Your task to perform on an android device: Show me popular videos on Youtube Image 0: 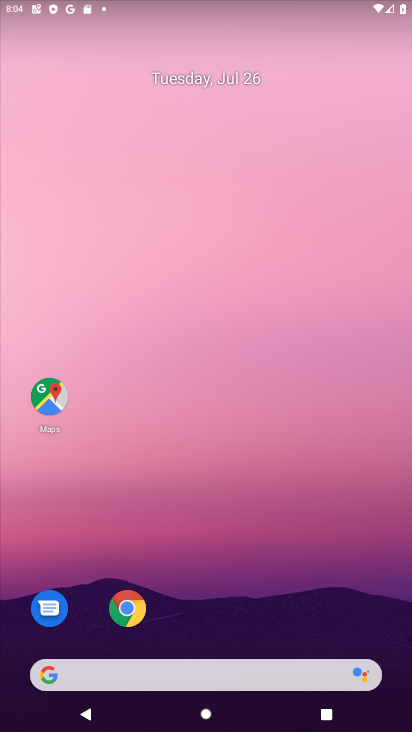
Step 0: drag from (251, 481) to (225, 146)
Your task to perform on an android device: Show me popular videos on Youtube Image 1: 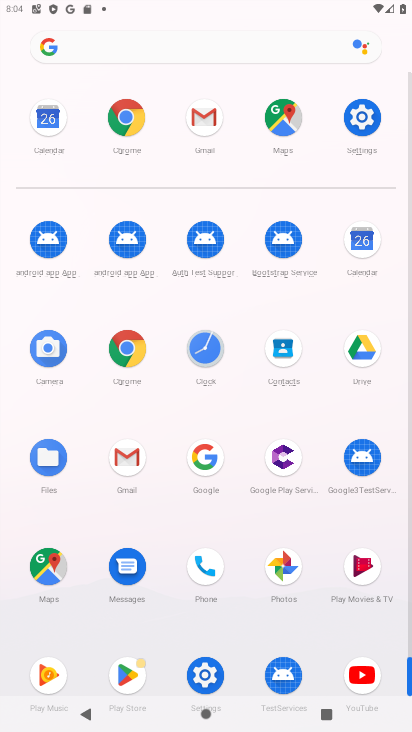
Step 1: click (362, 646)
Your task to perform on an android device: Show me popular videos on Youtube Image 2: 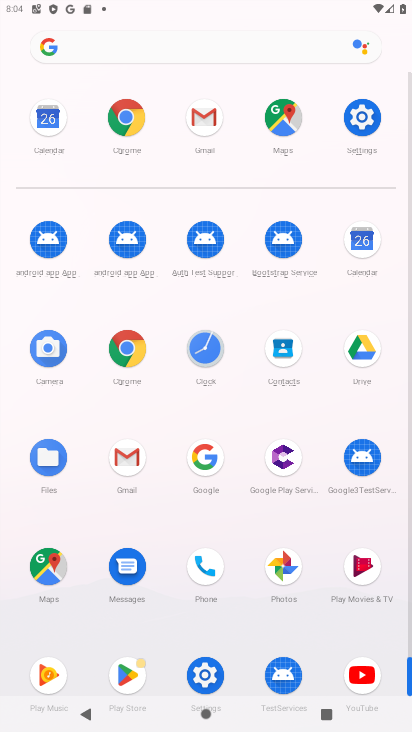
Step 2: click (366, 662)
Your task to perform on an android device: Show me popular videos on Youtube Image 3: 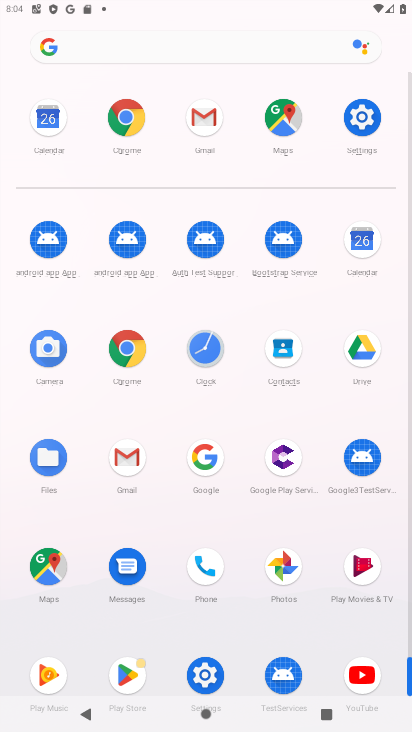
Step 3: click (365, 663)
Your task to perform on an android device: Show me popular videos on Youtube Image 4: 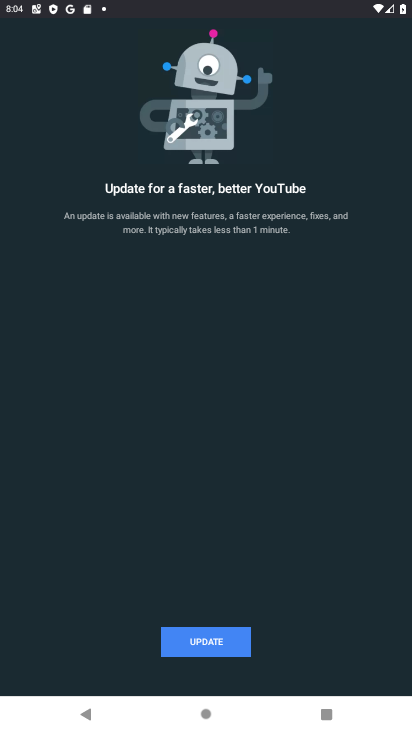
Step 4: press back button
Your task to perform on an android device: Show me popular videos on Youtube Image 5: 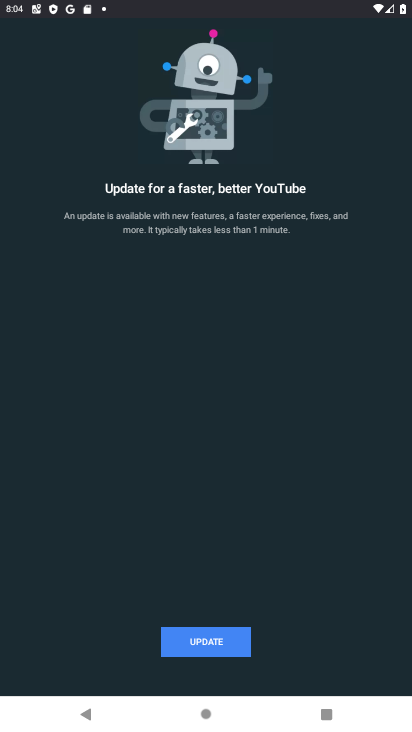
Step 5: press back button
Your task to perform on an android device: Show me popular videos on Youtube Image 6: 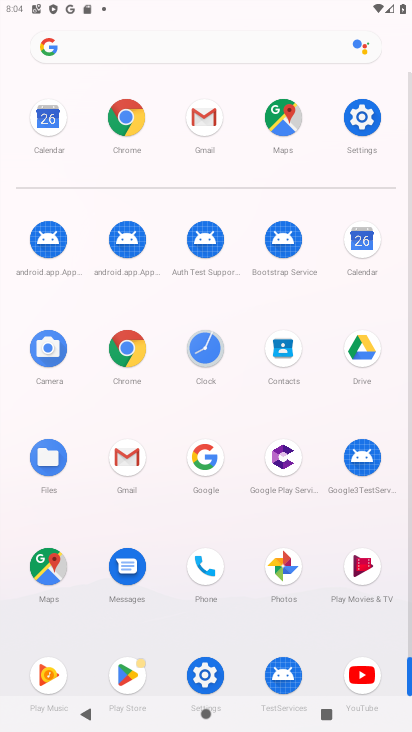
Step 6: click (364, 671)
Your task to perform on an android device: Show me popular videos on Youtube Image 7: 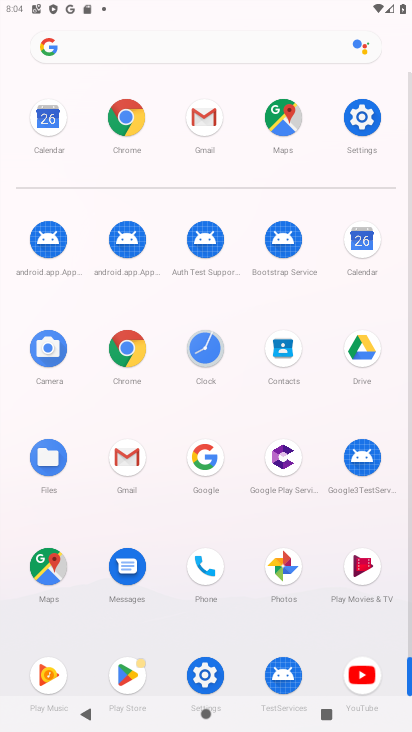
Step 7: click (364, 671)
Your task to perform on an android device: Show me popular videos on Youtube Image 8: 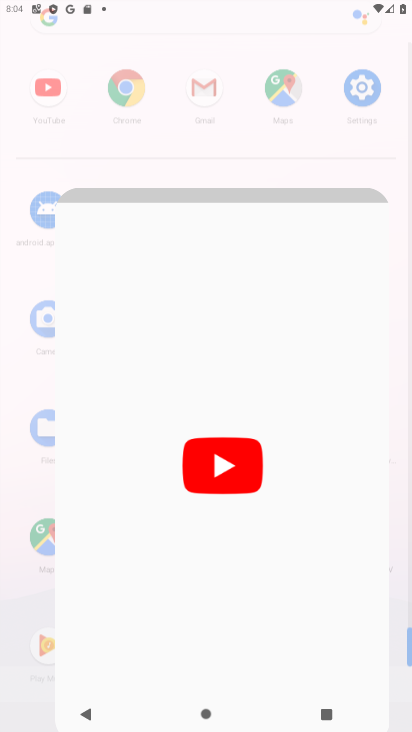
Step 8: click (364, 671)
Your task to perform on an android device: Show me popular videos on Youtube Image 9: 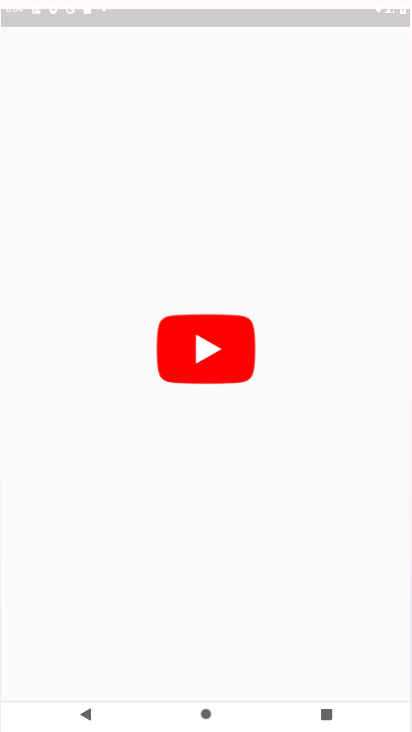
Step 9: click (364, 672)
Your task to perform on an android device: Show me popular videos on Youtube Image 10: 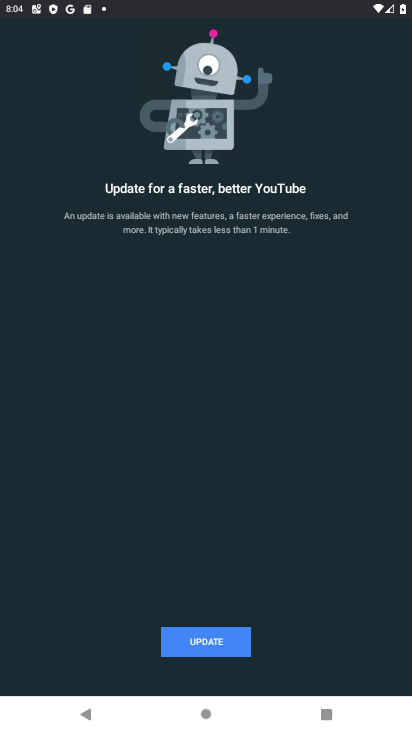
Step 10: press back button
Your task to perform on an android device: Show me popular videos on Youtube Image 11: 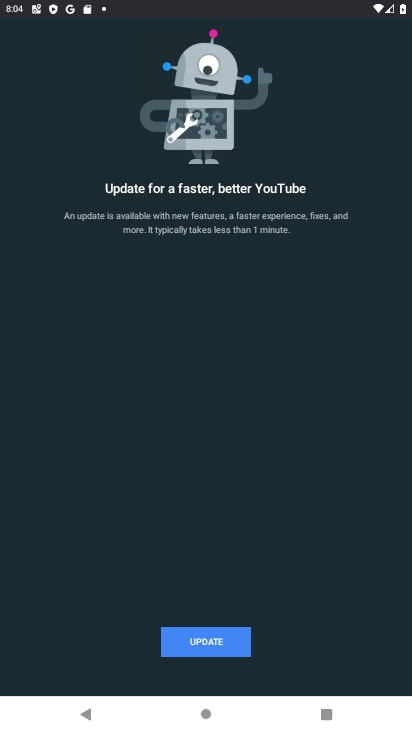
Step 11: press back button
Your task to perform on an android device: Show me popular videos on Youtube Image 12: 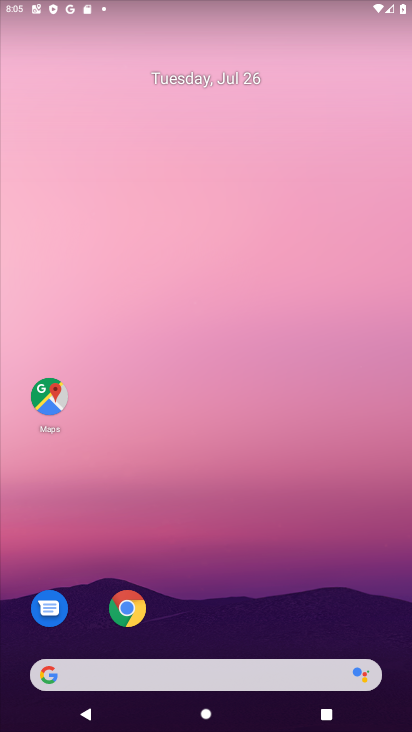
Step 12: drag from (266, 635) to (193, 222)
Your task to perform on an android device: Show me popular videos on Youtube Image 13: 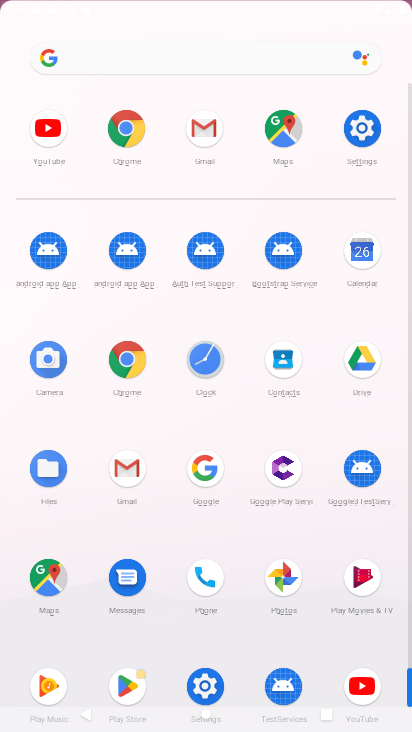
Step 13: drag from (246, 461) to (205, 120)
Your task to perform on an android device: Show me popular videos on Youtube Image 14: 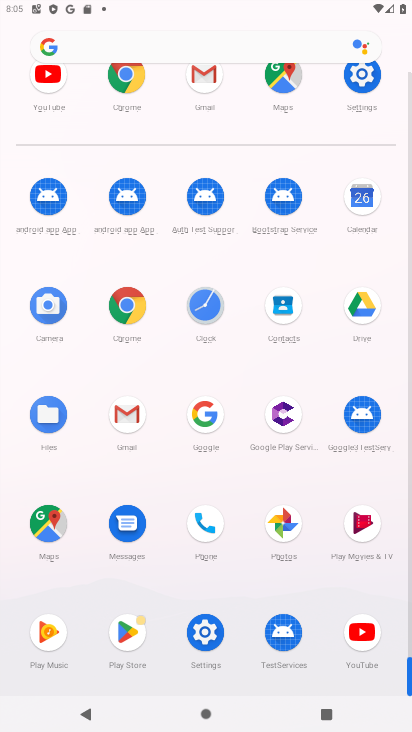
Step 14: click (360, 630)
Your task to perform on an android device: Show me popular videos on Youtube Image 15: 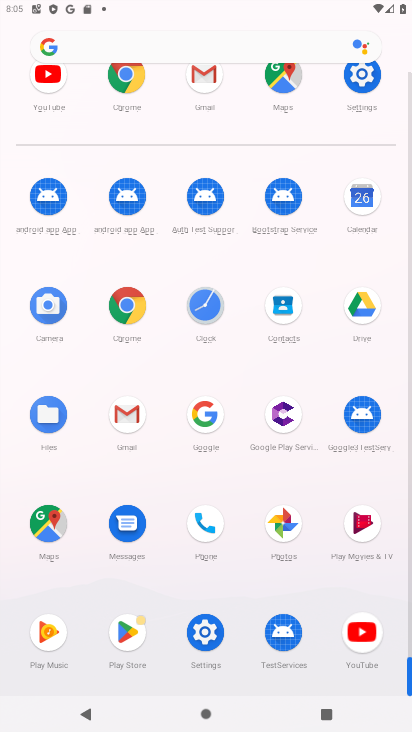
Step 15: click (360, 630)
Your task to perform on an android device: Show me popular videos on Youtube Image 16: 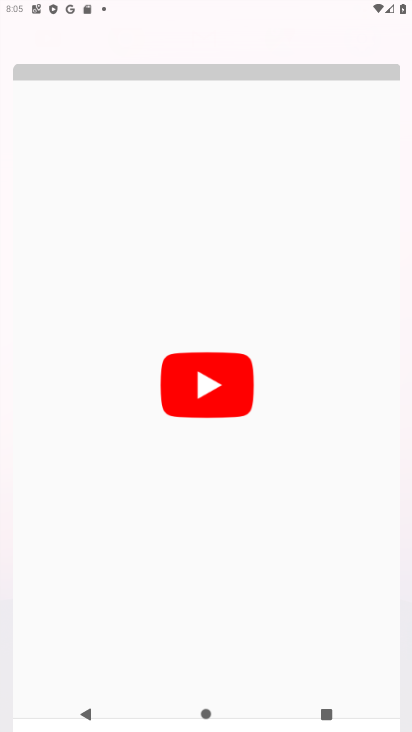
Step 16: click (361, 631)
Your task to perform on an android device: Show me popular videos on Youtube Image 17: 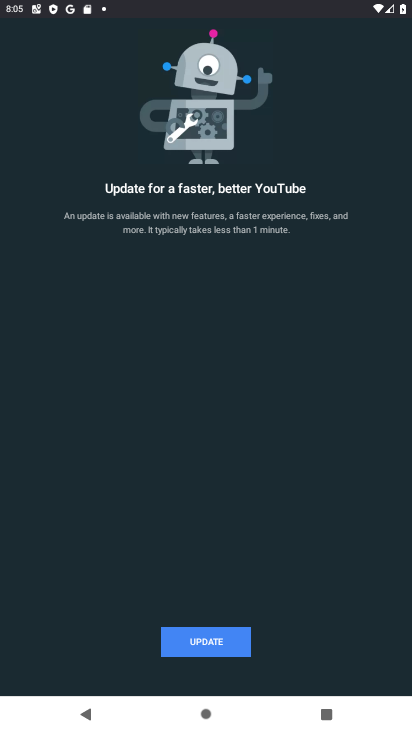
Step 17: click (362, 633)
Your task to perform on an android device: Show me popular videos on Youtube Image 18: 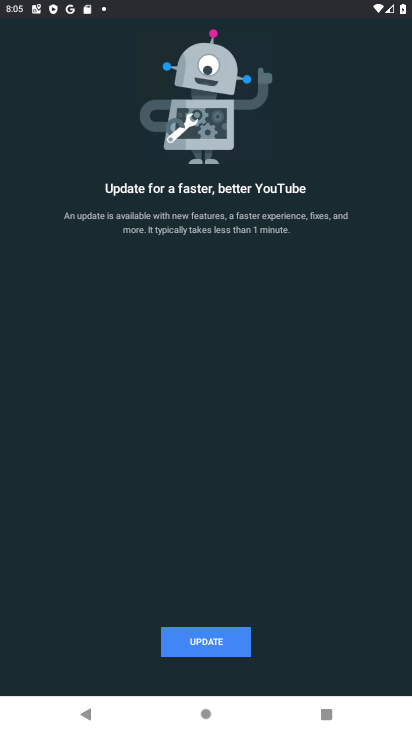
Step 18: click (193, 634)
Your task to perform on an android device: Show me popular videos on Youtube Image 19: 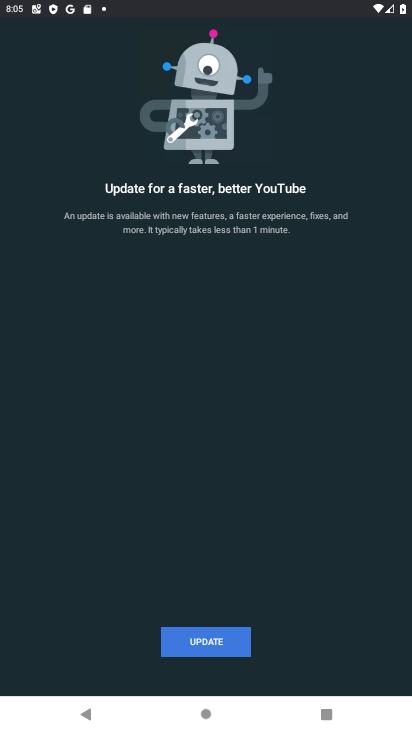
Step 19: click (194, 633)
Your task to perform on an android device: Show me popular videos on Youtube Image 20: 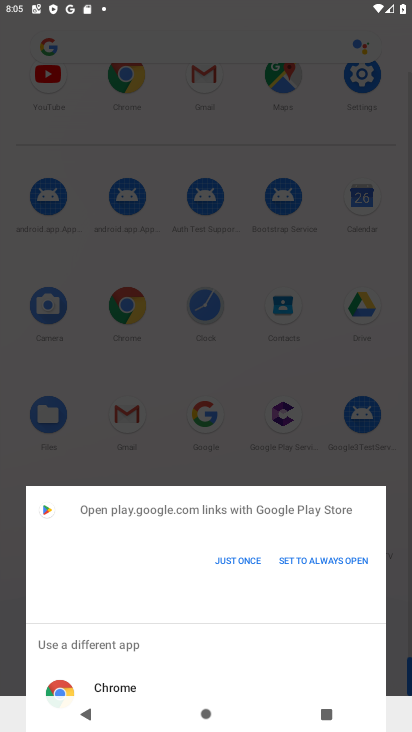
Step 20: drag from (152, 624) to (160, 464)
Your task to perform on an android device: Show me popular videos on Youtube Image 21: 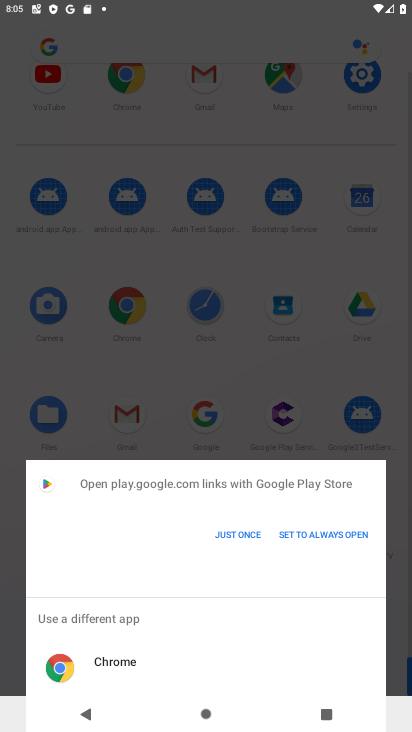
Step 21: click (295, 540)
Your task to perform on an android device: Show me popular videos on Youtube Image 22: 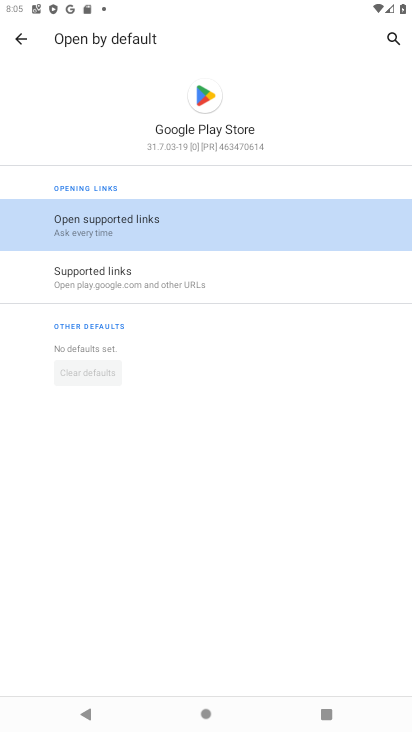
Step 22: click (14, 36)
Your task to perform on an android device: Show me popular videos on Youtube Image 23: 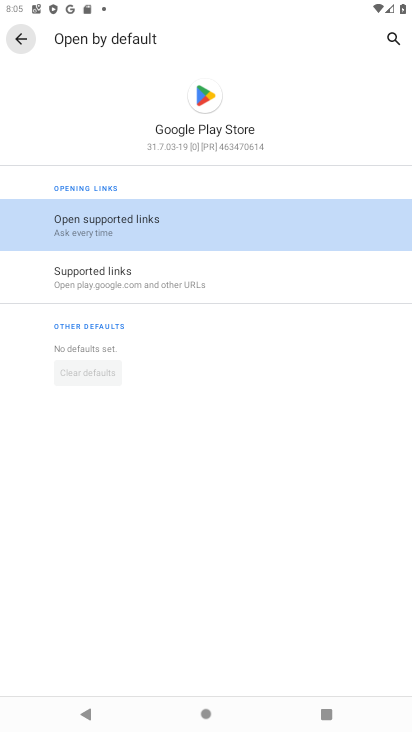
Step 23: click (14, 36)
Your task to perform on an android device: Show me popular videos on Youtube Image 24: 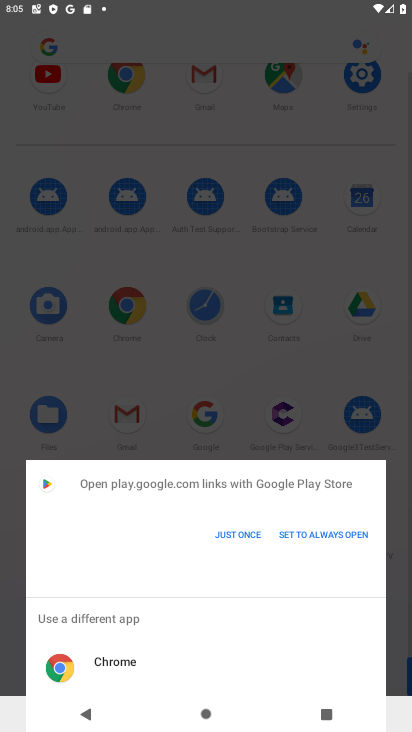
Step 24: drag from (145, 640) to (147, 287)
Your task to perform on an android device: Show me popular videos on Youtube Image 25: 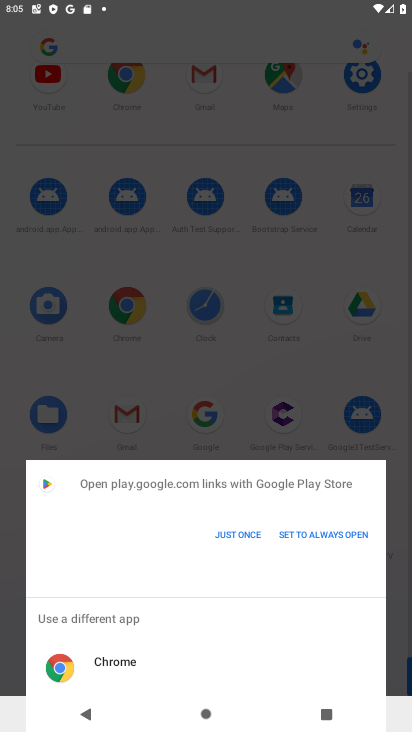
Step 25: drag from (179, 589) to (173, 308)
Your task to perform on an android device: Show me popular videos on Youtube Image 26: 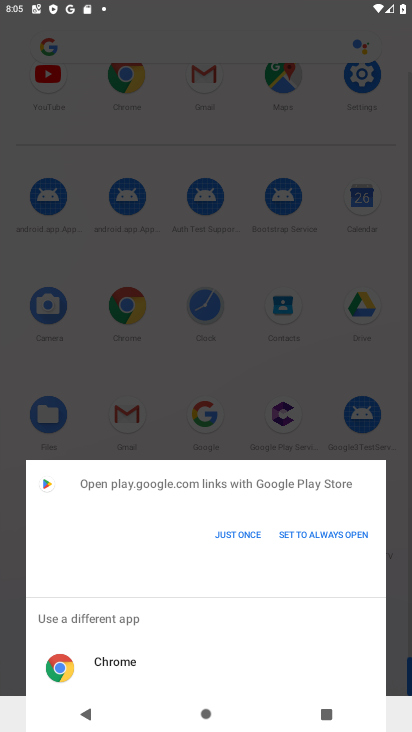
Step 26: drag from (152, 594) to (159, 297)
Your task to perform on an android device: Show me popular videos on Youtube Image 27: 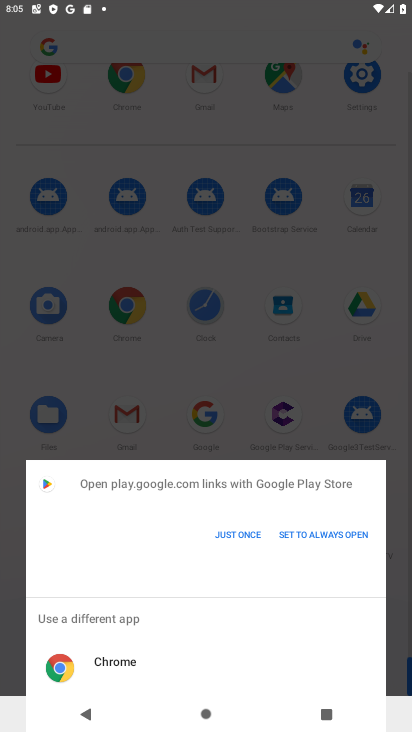
Step 27: drag from (190, 633) to (189, 248)
Your task to perform on an android device: Show me popular videos on Youtube Image 28: 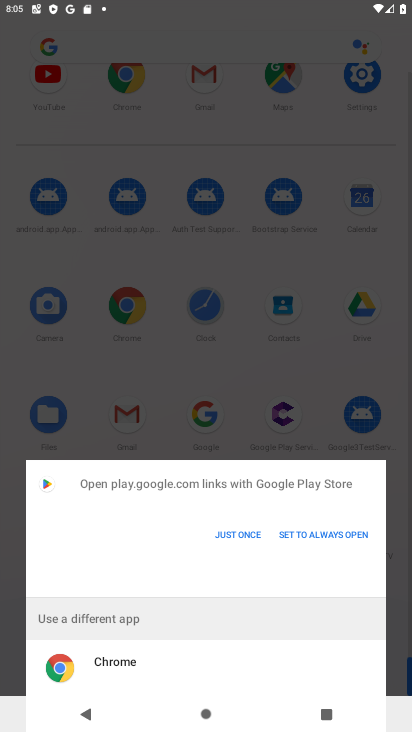
Step 28: drag from (199, 598) to (194, 245)
Your task to perform on an android device: Show me popular videos on Youtube Image 29: 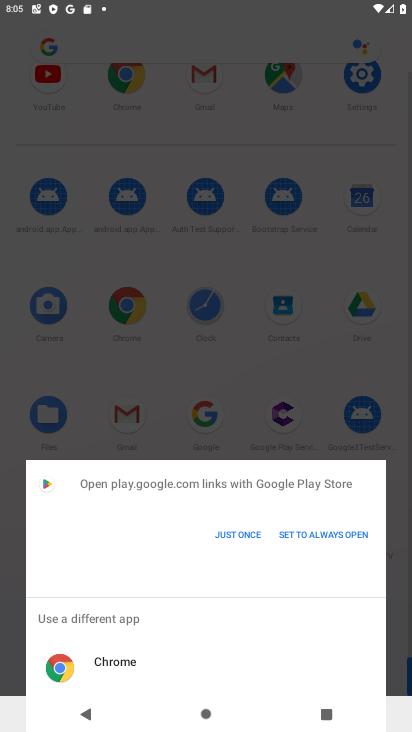
Step 29: drag from (209, 587) to (228, 450)
Your task to perform on an android device: Show me popular videos on Youtube Image 30: 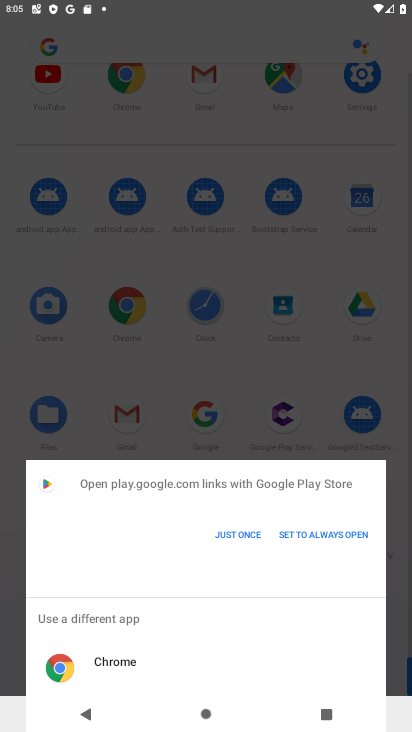
Step 30: click (235, 538)
Your task to perform on an android device: Show me popular videos on Youtube Image 31: 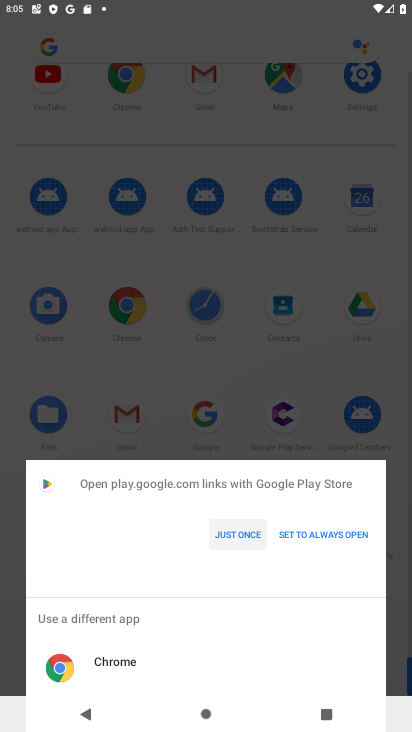
Step 31: click (235, 538)
Your task to perform on an android device: Show me popular videos on Youtube Image 32: 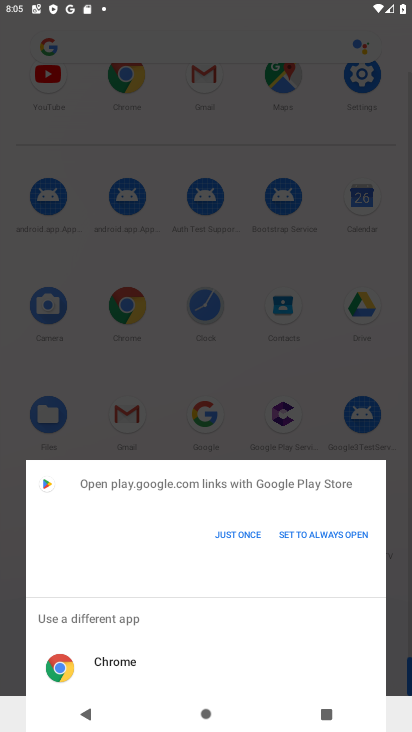
Step 32: click (235, 539)
Your task to perform on an android device: Show me popular videos on Youtube Image 33: 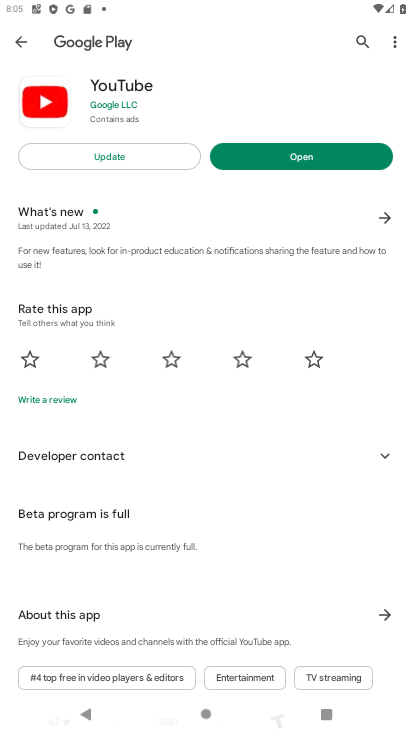
Step 33: click (154, 156)
Your task to perform on an android device: Show me popular videos on Youtube Image 34: 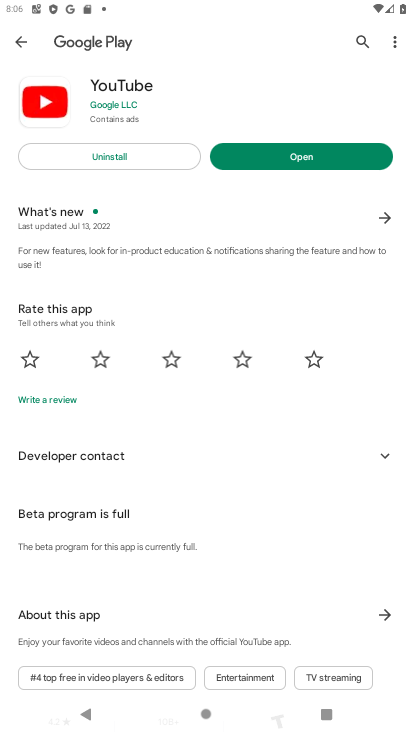
Step 34: click (296, 153)
Your task to perform on an android device: Show me popular videos on Youtube Image 35: 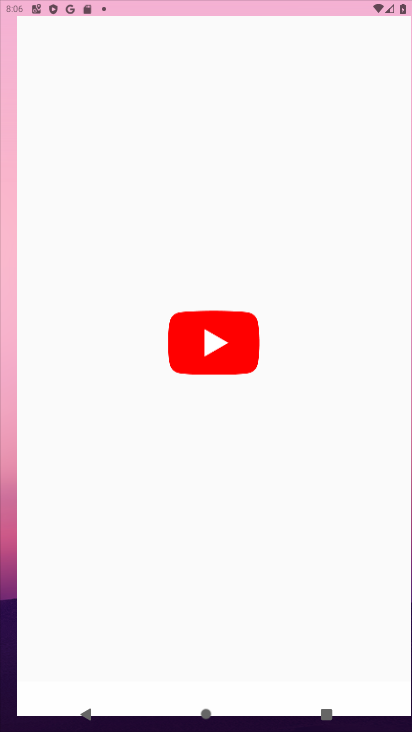
Step 35: click (299, 156)
Your task to perform on an android device: Show me popular videos on Youtube Image 36: 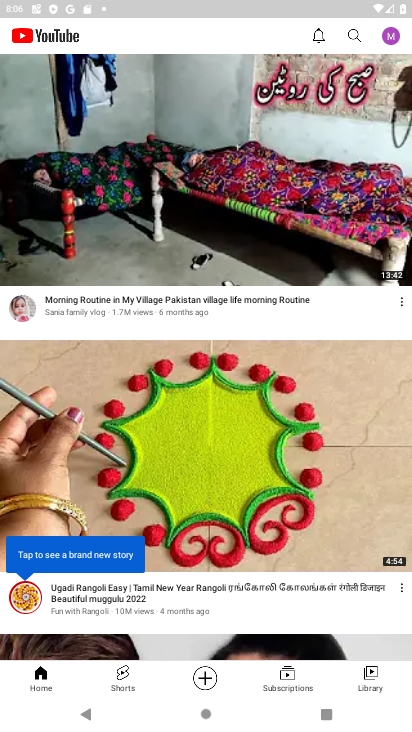
Step 36: task complete